Your task to perform on an android device: change the clock display to digital Image 0: 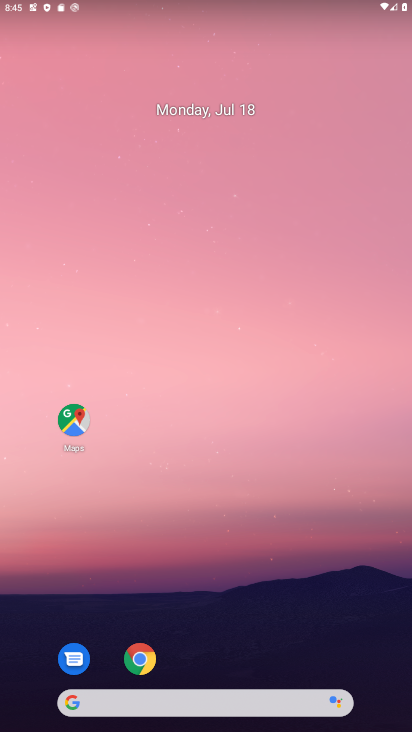
Step 0: drag from (294, 630) to (196, 12)
Your task to perform on an android device: change the clock display to digital Image 1: 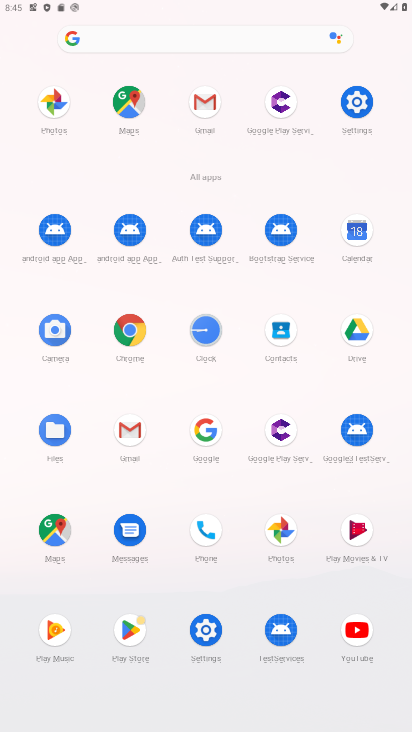
Step 1: click (197, 335)
Your task to perform on an android device: change the clock display to digital Image 2: 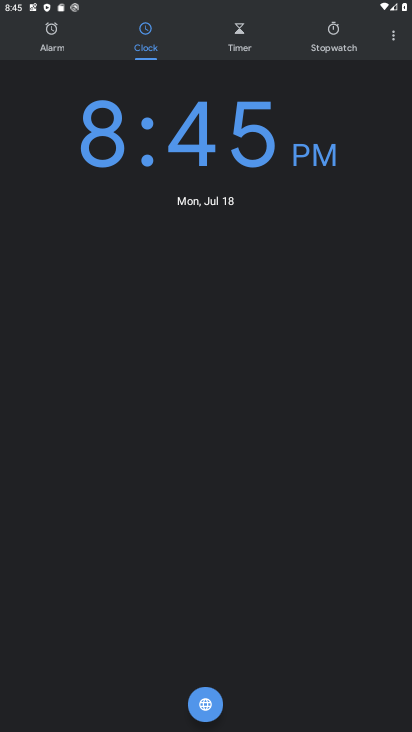
Step 2: click (384, 38)
Your task to perform on an android device: change the clock display to digital Image 3: 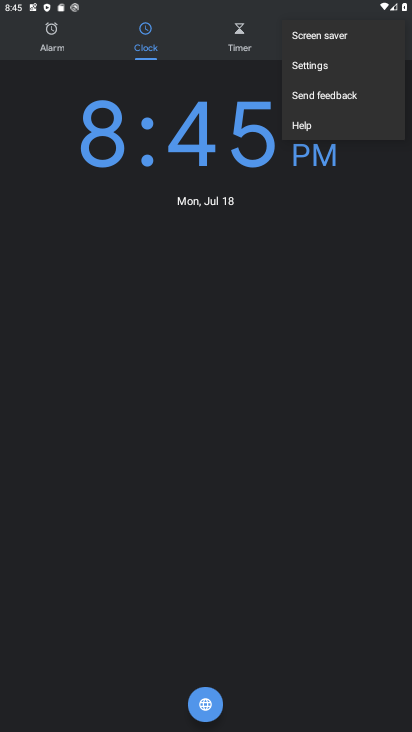
Step 3: click (318, 61)
Your task to perform on an android device: change the clock display to digital Image 4: 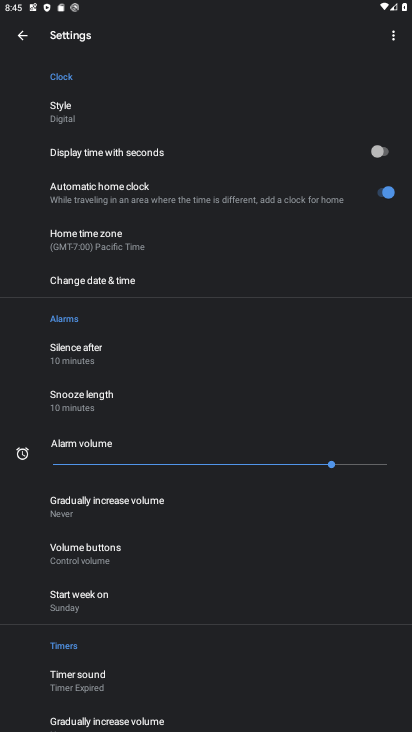
Step 4: click (51, 111)
Your task to perform on an android device: change the clock display to digital Image 5: 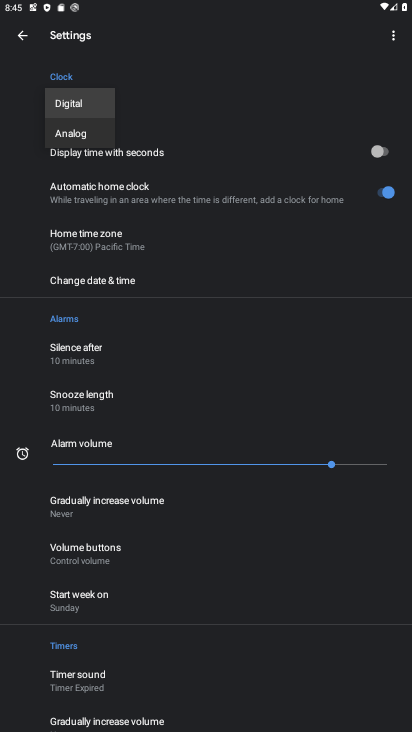
Step 5: task complete